Your task to perform on an android device: add a contact Image 0: 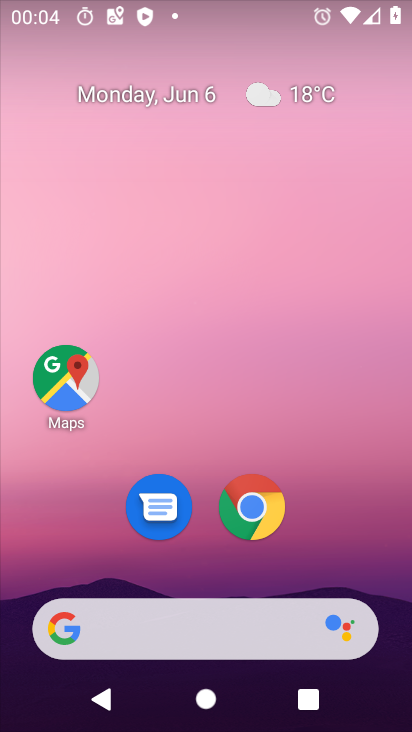
Step 0: drag from (237, 723) to (207, 91)
Your task to perform on an android device: add a contact Image 1: 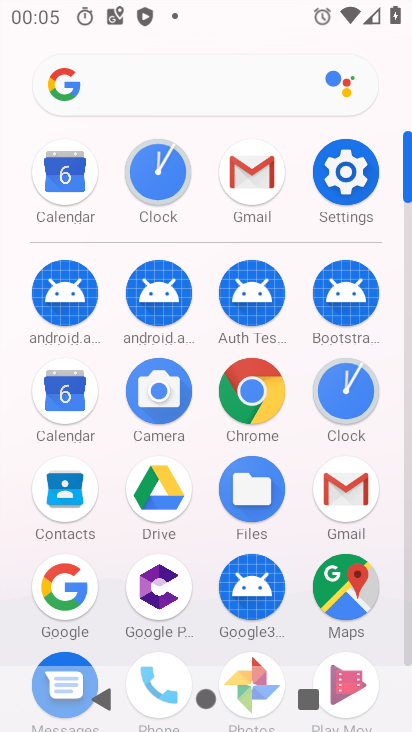
Step 1: click (70, 494)
Your task to perform on an android device: add a contact Image 2: 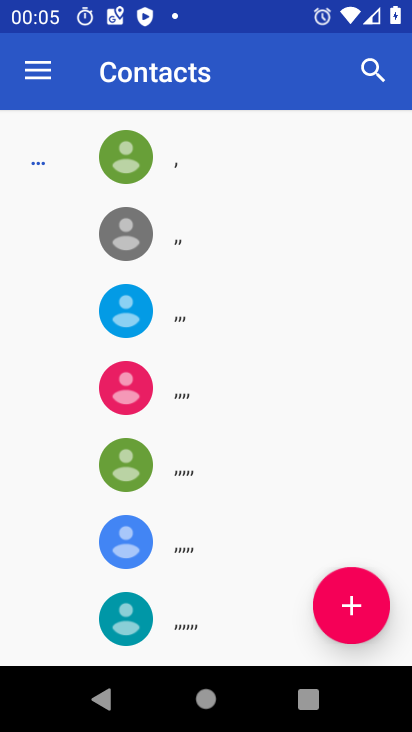
Step 2: click (352, 599)
Your task to perform on an android device: add a contact Image 3: 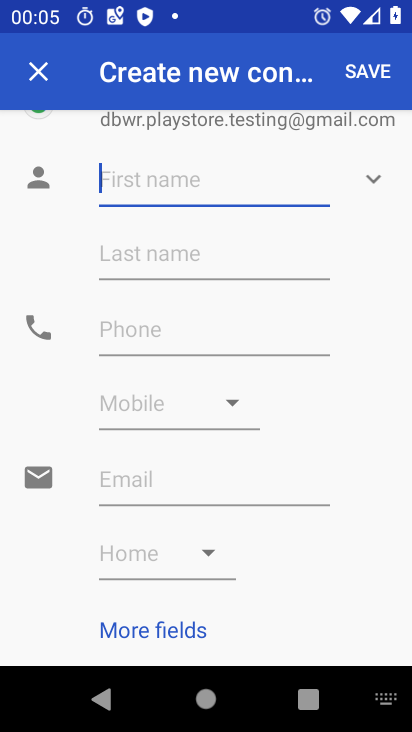
Step 3: type "natural"
Your task to perform on an android device: add a contact Image 4: 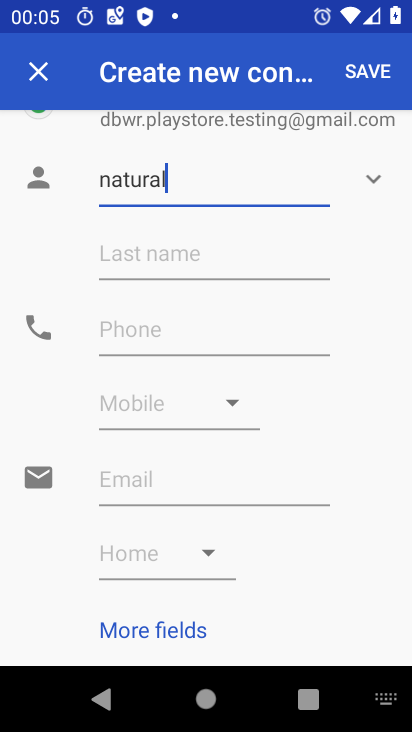
Step 4: click (145, 324)
Your task to perform on an android device: add a contact Image 5: 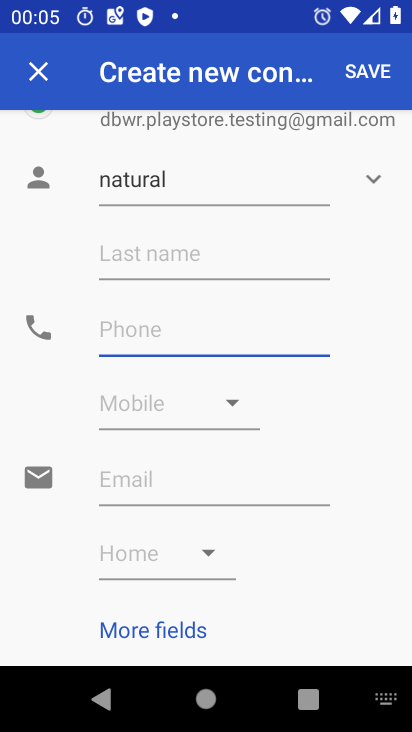
Step 5: type "9090090909"
Your task to perform on an android device: add a contact Image 6: 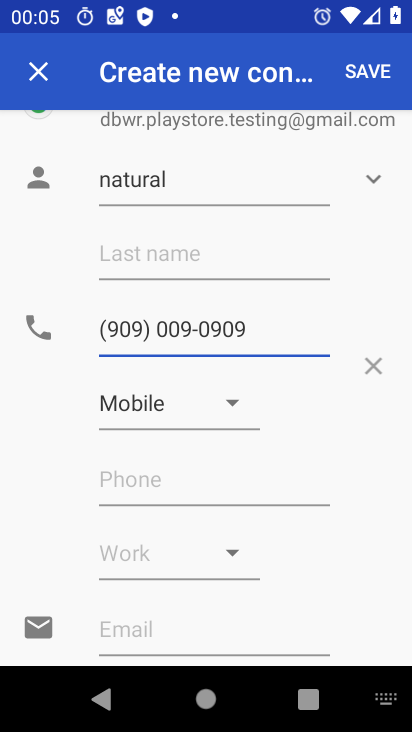
Step 6: click (366, 61)
Your task to perform on an android device: add a contact Image 7: 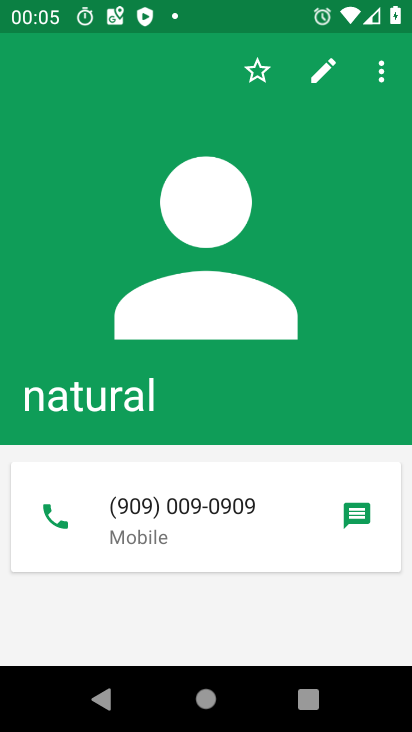
Step 7: task complete